Your task to perform on an android device: What's the weather today? Image 0: 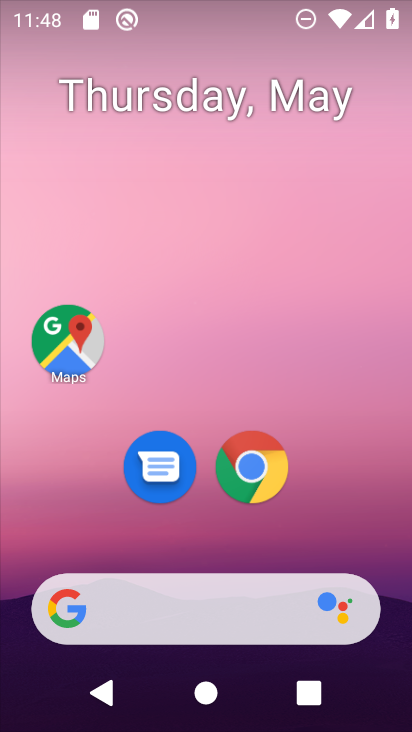
Step 0: drag from (225, 515) to (252, 204)
Your task to perform on an android device: What's the weather today? Image 1: 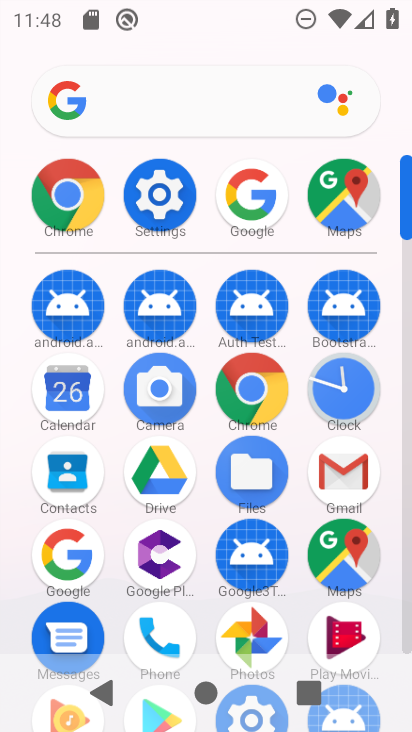
Step 1: drag from (206, 248) to (227, 62)
Your task to perform on an android device: What's the weather today? Image 2: 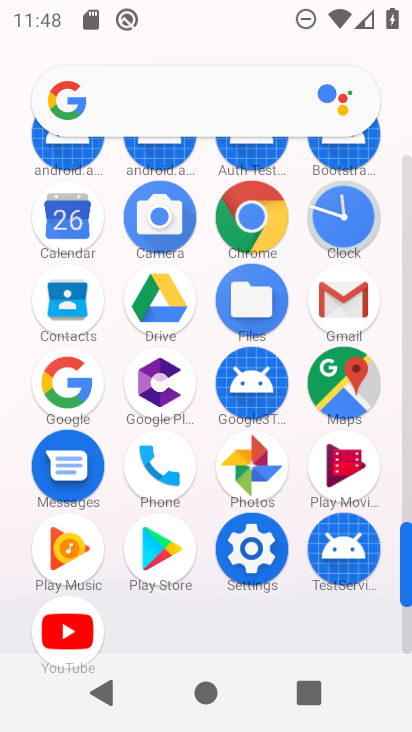
Step 2: click (82, 398)
Your task to perform on an android device: What's the weather today? Image 3: 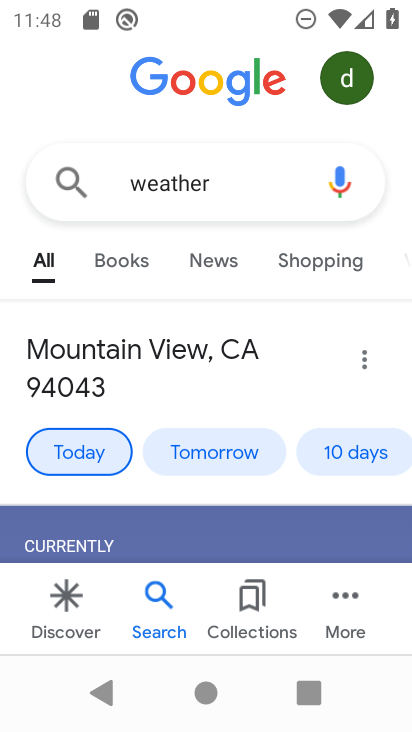
Step 3: click (76, 620)
Your task to perform on an android device: What's the weather today? Image 4: 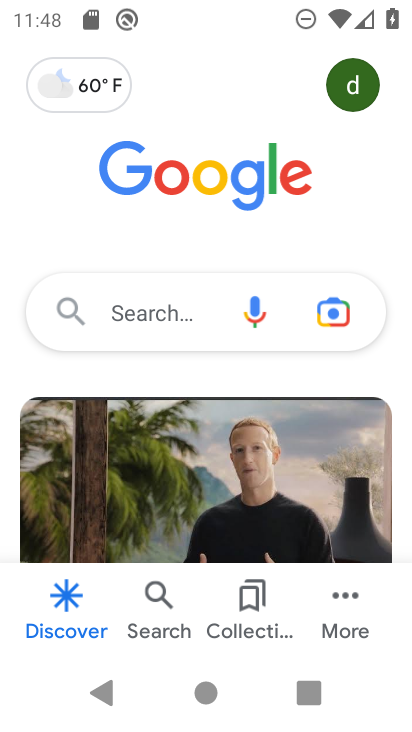
Step 4: click (61, 86)
Your task to perform on an android device: What's the weather today? Image 5: 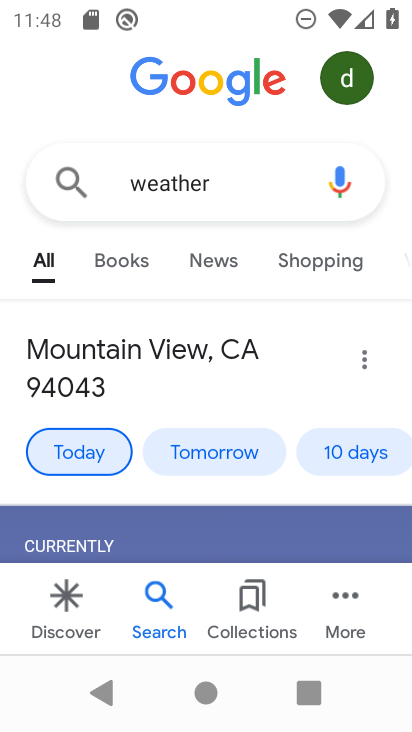
Step 5: task complete